Your task to perform on an android device: turn off location history Image 0: 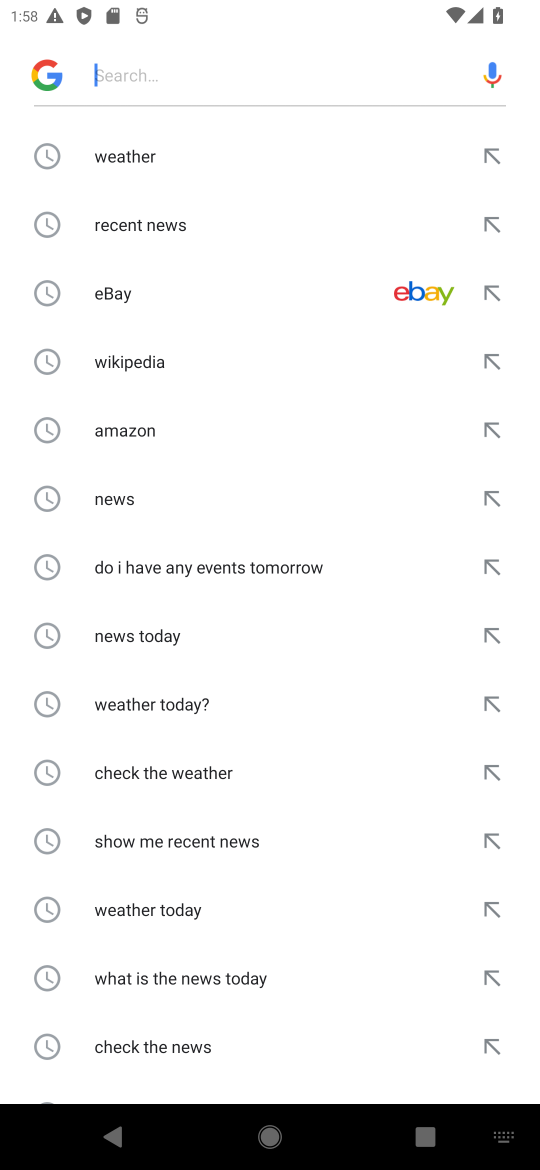
Step 0: click (500, 276)
Your task to perform on an android device: turn off location history Image 1: 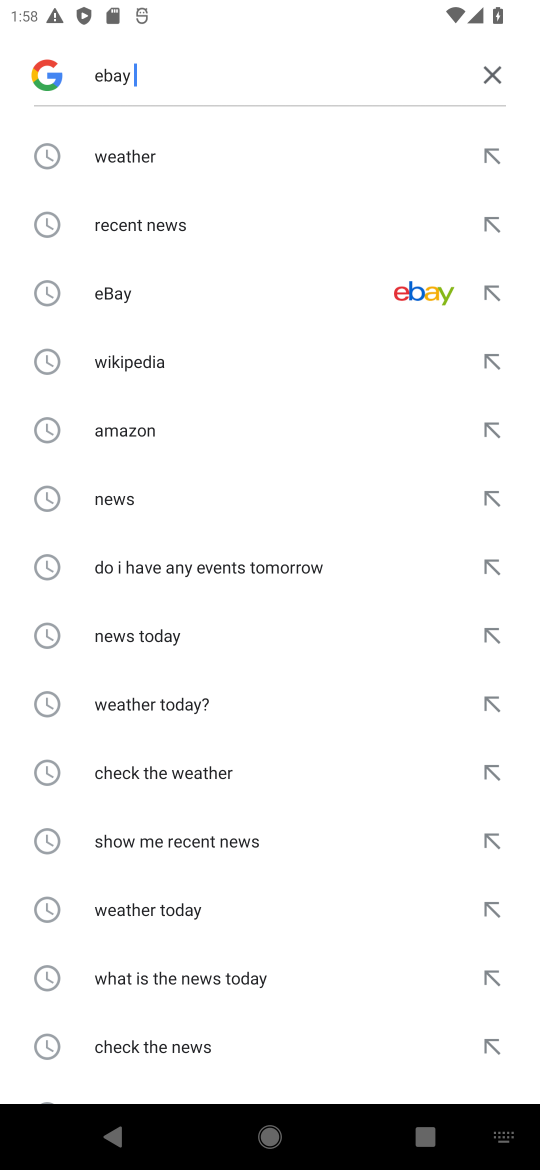
Step 1: press home button
Your task to perform on an android device: turn off location history Image 2: 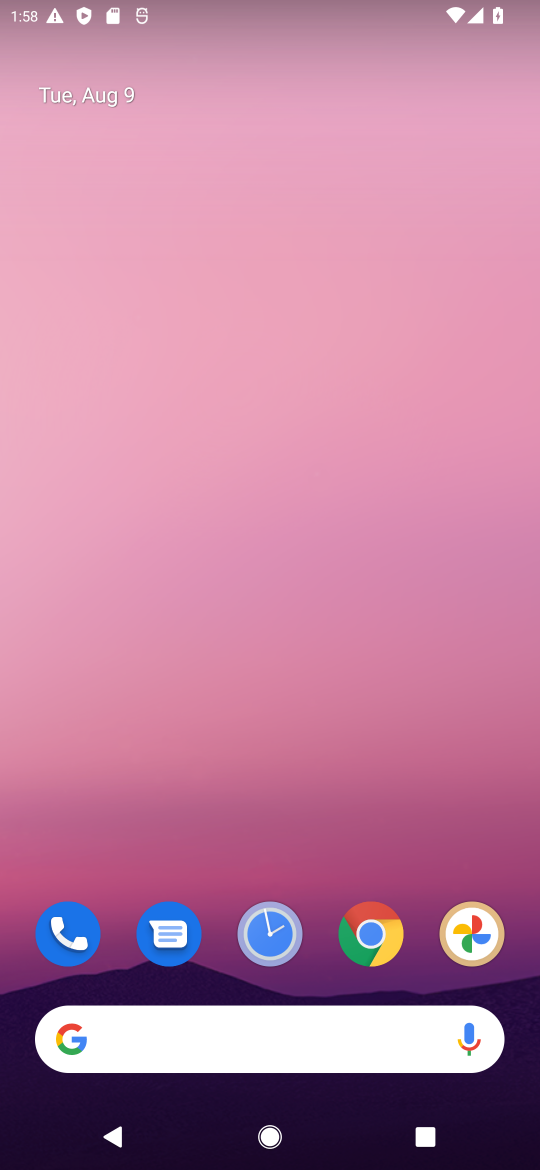
Step 2: drag from (227, 999) to (284, 123)
Your task to perform on an android device: turn off location history Image 3: 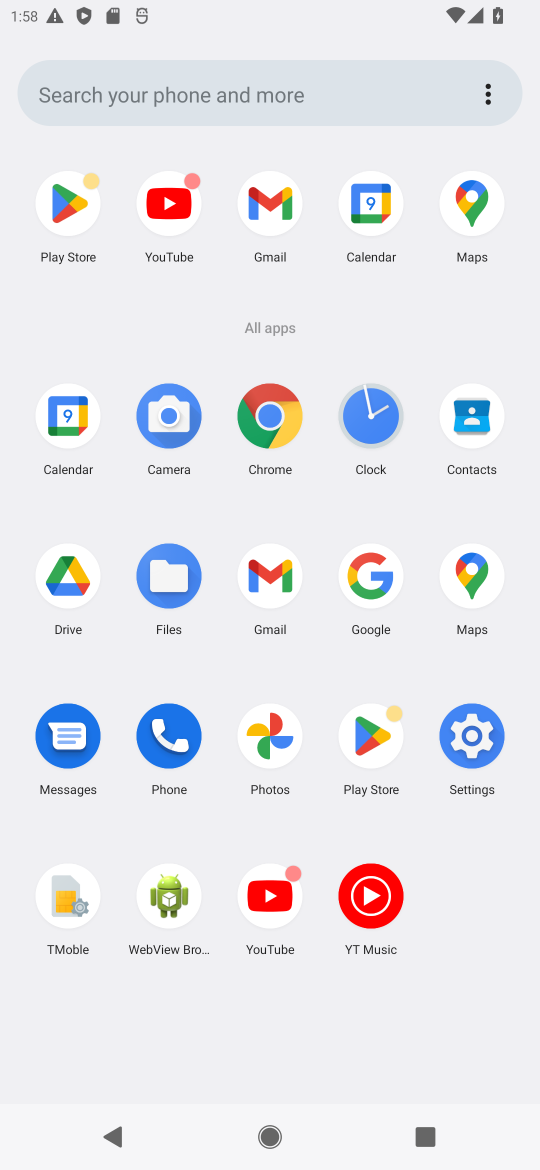
Step 3: click (484, 742)
Your task to perform on an android device: turn off location history Image 4: 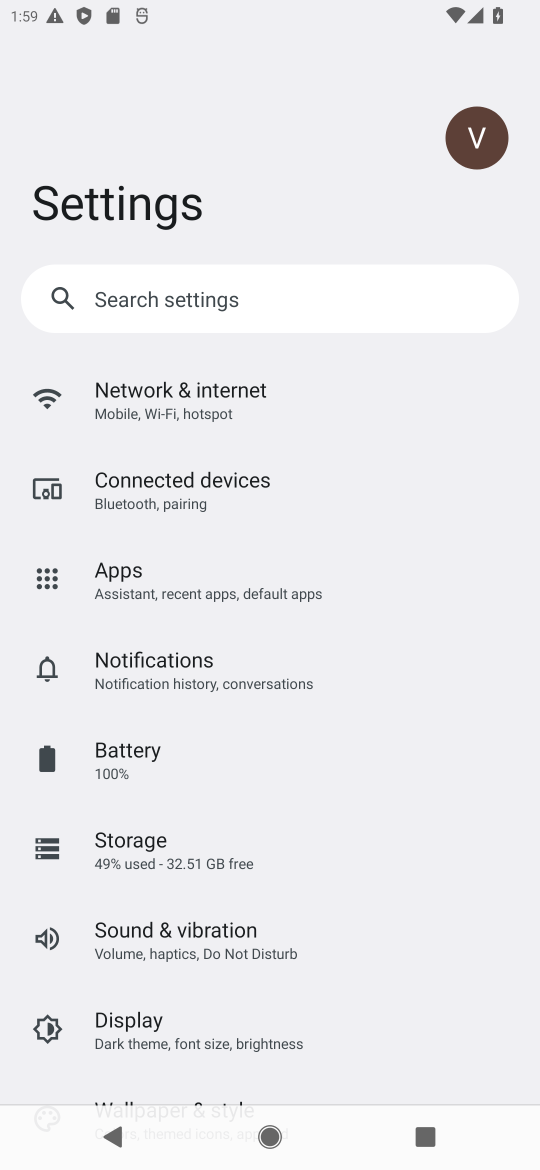
Step 4: task complete